Your task to perform on an android device: Go to Amazon Image 0: 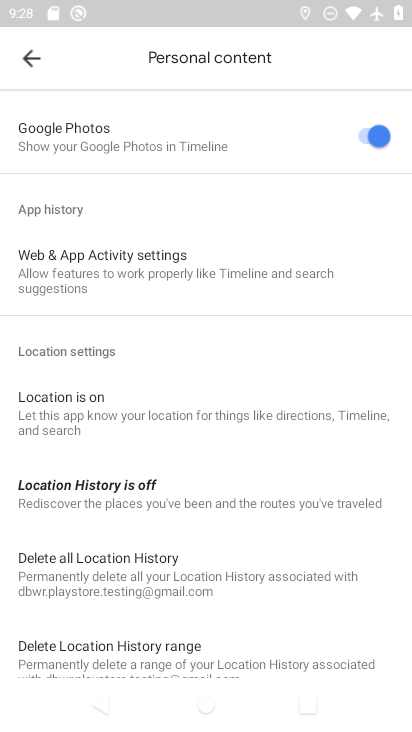
Step 0: press home button
Your task to perform on an android device: Go to Amazon Image 1: 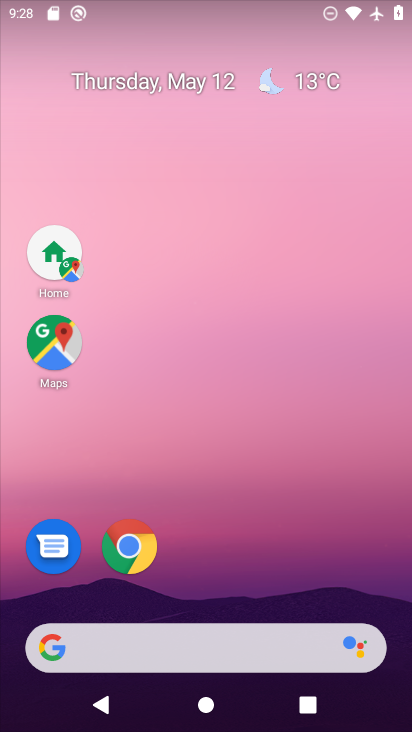
Step 1: click (141, 556)
Your task to perform on an android device: Go to Amazon Image 2: 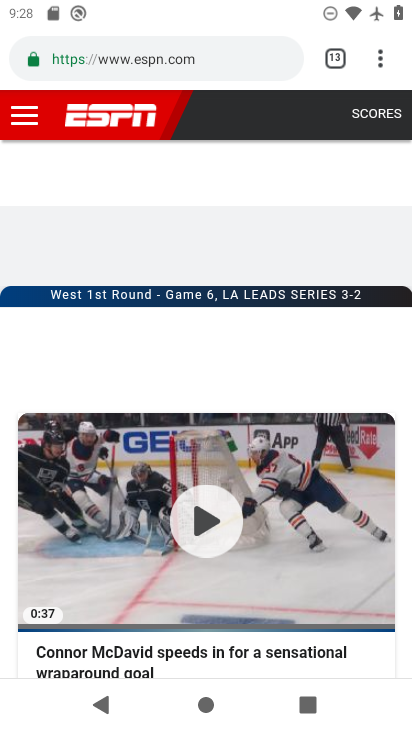
Step 2: drag from (380, 66) to (266, 112)
Your task to perform on an android device: Go to Amazon Image 3: 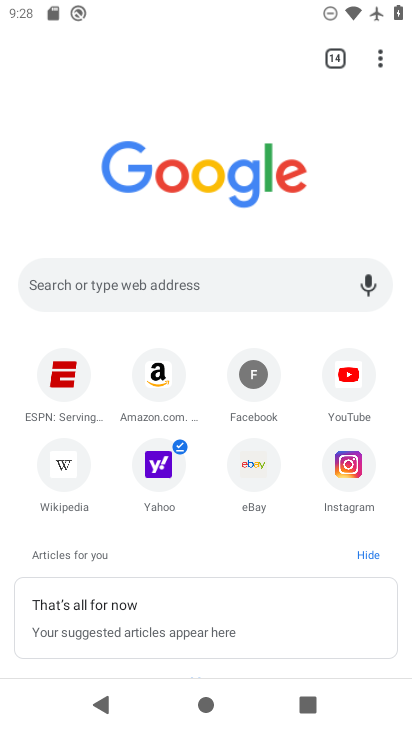
Step 3: click (164, 380)
Your task to perform on an android device: Go to Amazon Image 4: 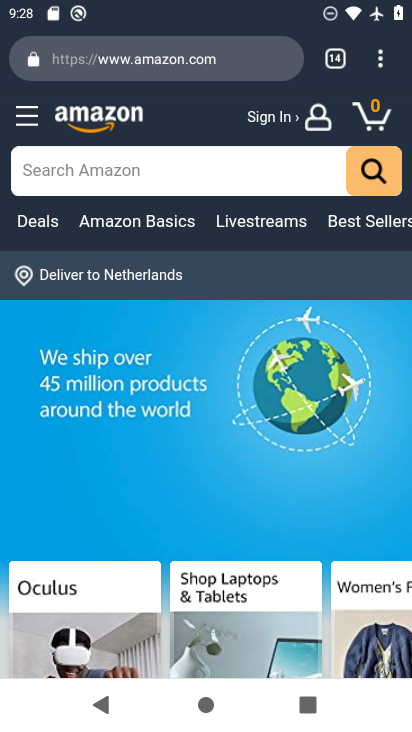
Step 4: task complete